Your task to perform on an android device: Search for Mexican restaurants on Maps Image 0: 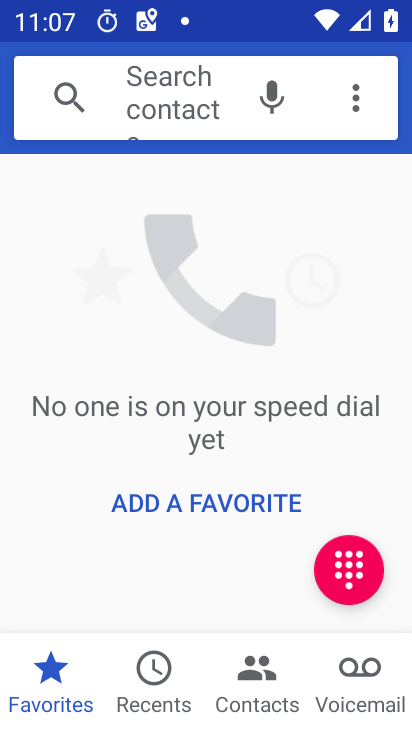
Step 0: press home button
Your task to perform on an android device: Search for Mexican restaurants on Maps Image 1: 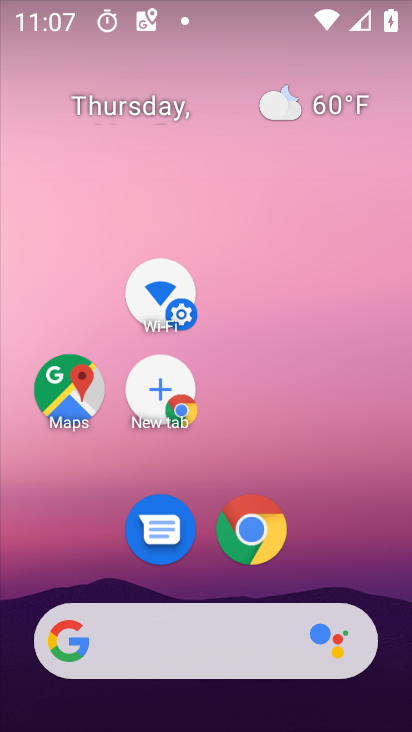
Step 1: drag from (357, 568) to (94, 115)
Your task to perform on an android device: Search for Mexican restaurants on Maps Image 2: 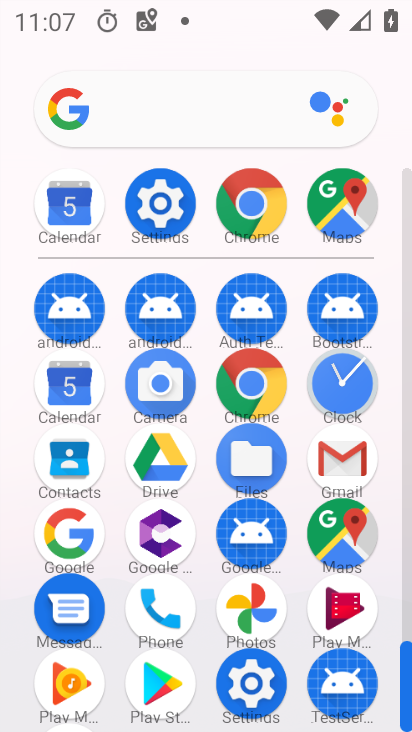
Step 2: click (348, 542)
Your task to perform on an android device: Search for Mexican restaurants on Maps Image 3: 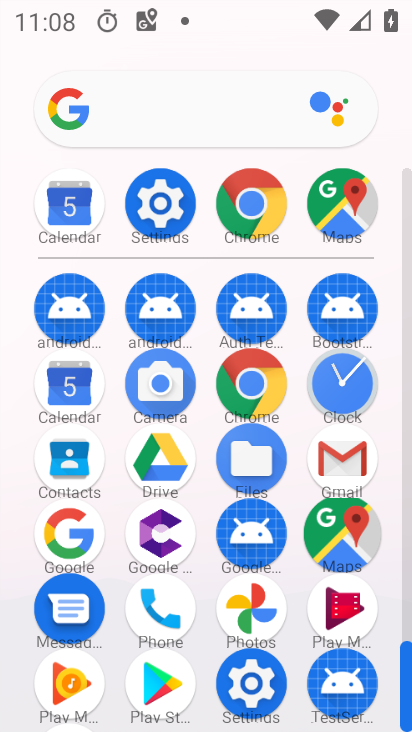
Step 3: click (348, 542)
Your task to perform on an android device: Search for Mexican restaurants on Maps Image 4: 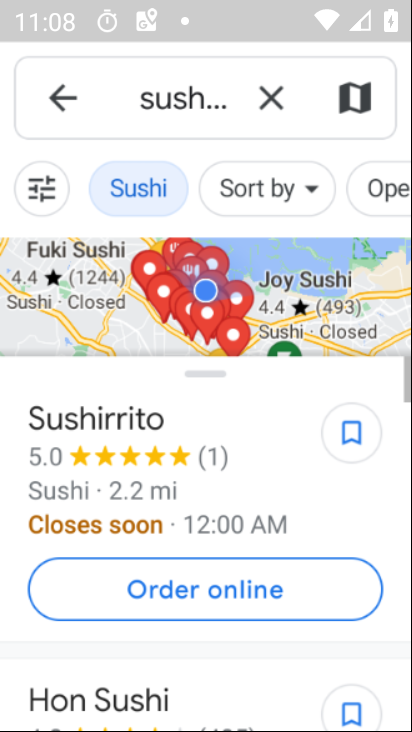
Step 4: click (348, 539)
Your task to perform on an android device: Search for Mexican restaurants on Maps Image 5: 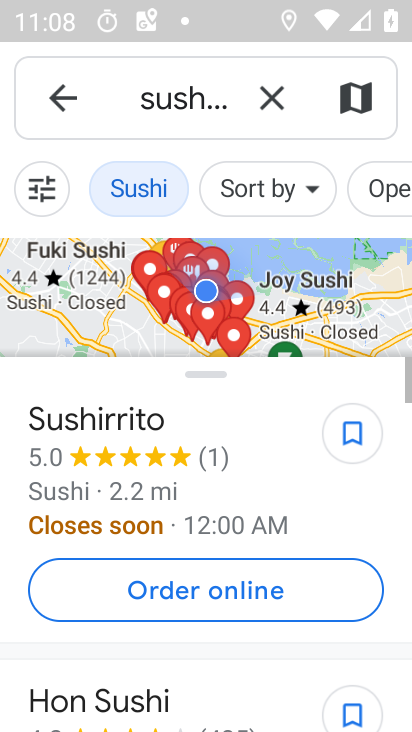
Step 5: click (270, 99)
Your task to perform on an android device: Search for Mexican restaurants on Maps Image 6: 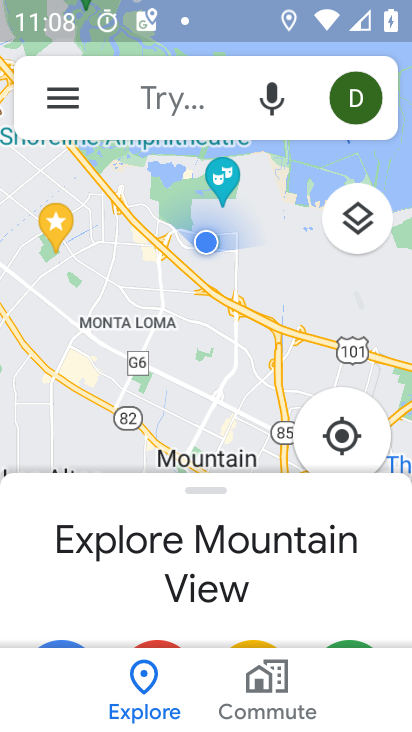
Step 6: click (140, 117)
Your task to perform on an android device: Search for Mexican restaurants on Maps Image 7: 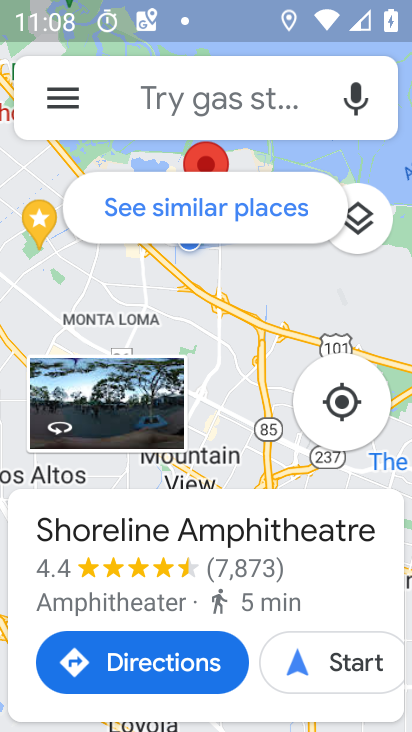
Step 7: click (119, 89)
Your task to perform on an android device: Search for Mexican restaurants on Maps Image 8: 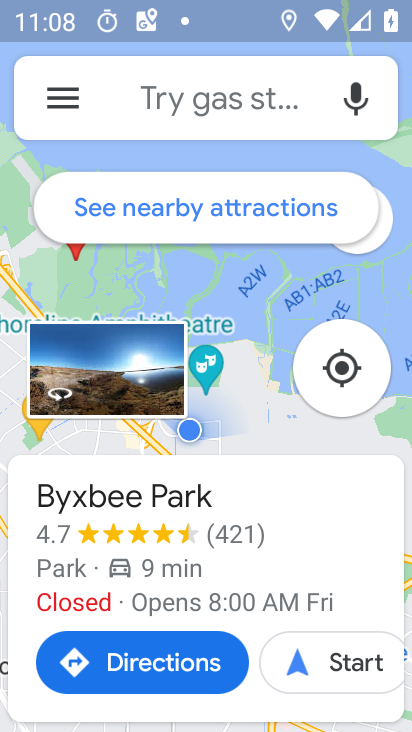
Step 8: type "mexican restaurants"
Your task to perform on an android device: Search for Mexican restaurants on Maps Image 9: 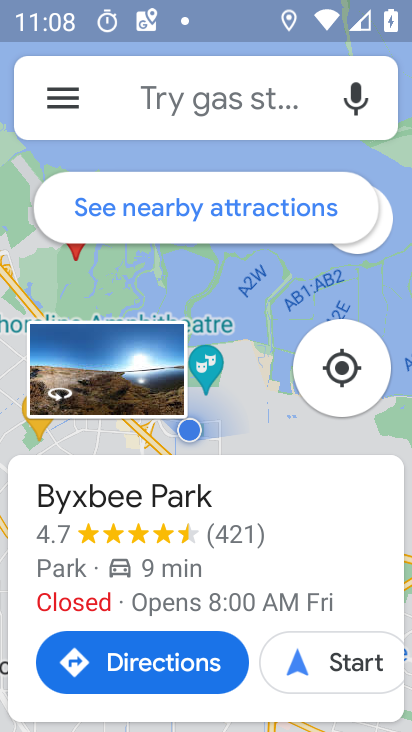
Step 9: click (176, 101)
Your task to perform on an android device: Search for Mexican restaurants on Maps Image 10: 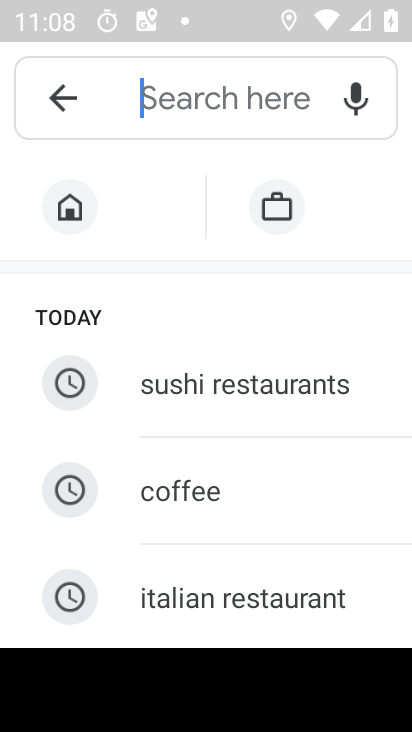
Step 10: type "mexican restaurants"
Your task to perform on an android device: Search for Mexican restaurants on Maps Image 11: 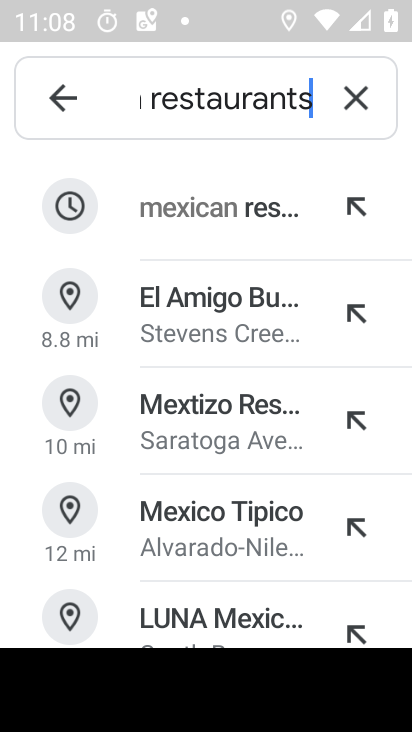
Step 11: click (199, 217)
Your task to perform on an android device: Search for Mexican restaurants on Maps Image 12: 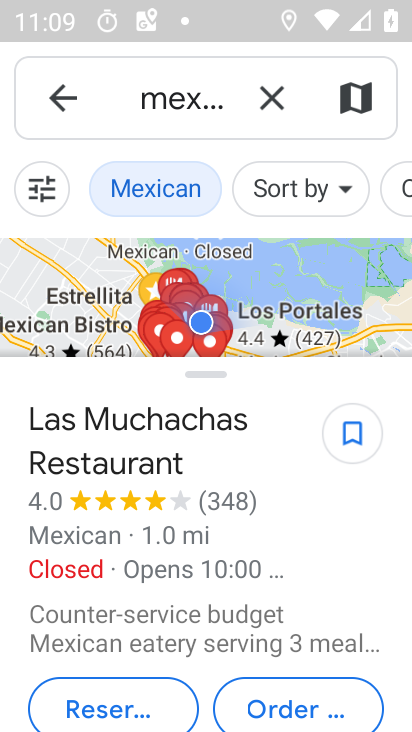
Step 12: task complete